Your task to perform on an android device: Open Google Image 0: 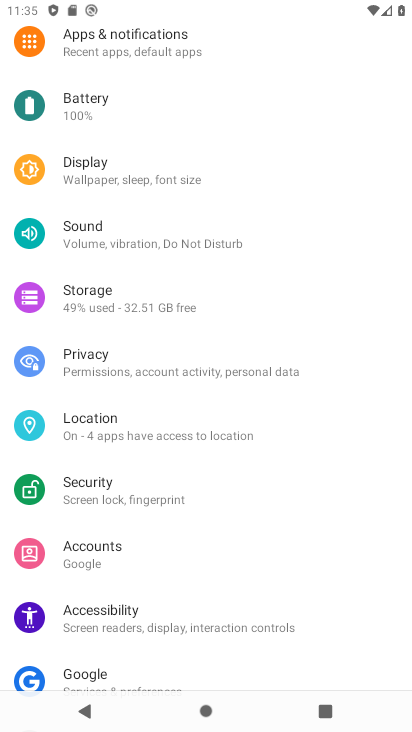
Step 0: press home button
Your task to perform on an android device: Open Google Image 1: 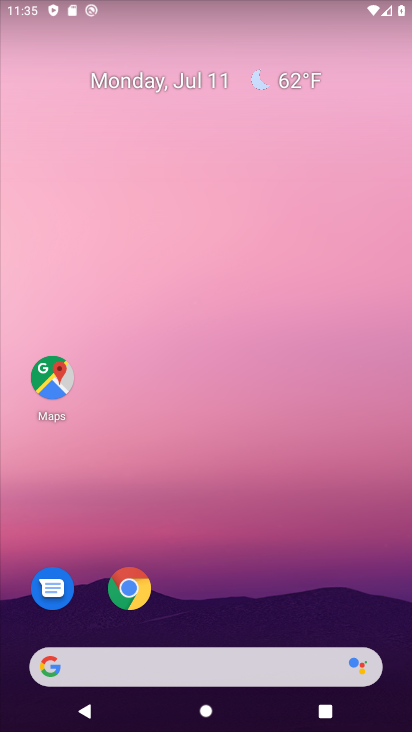
Step 1: click (110, 670)
Your task to perform on an android device: Open Google Image 2: 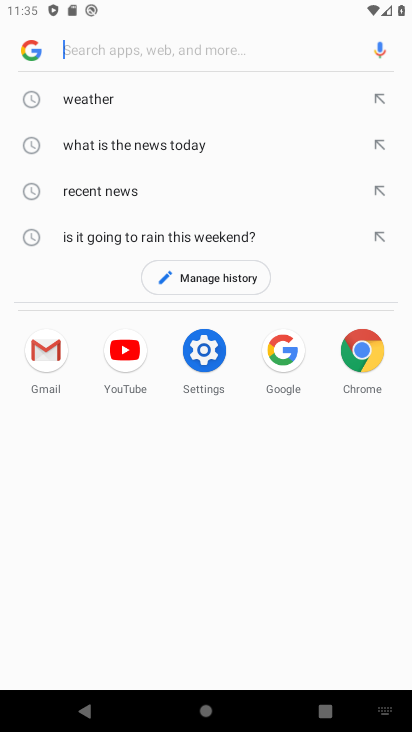
Step 2: task complete